Your task to perform on an android device: Go to ESPN.com Image 0: 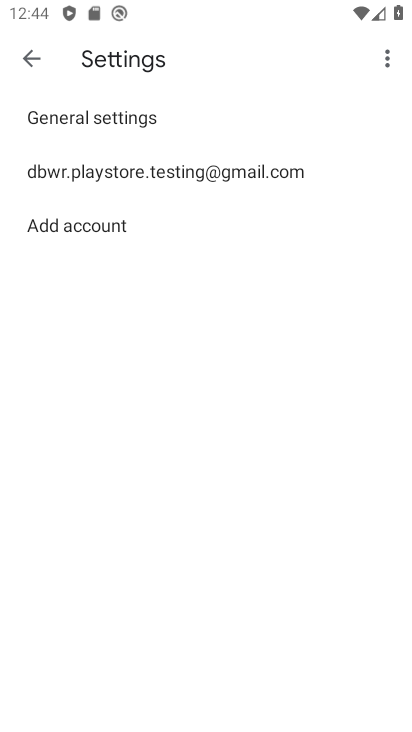
Step 0: press home button
Your task to perform on an android device: Go to ESPN.com Image 1: 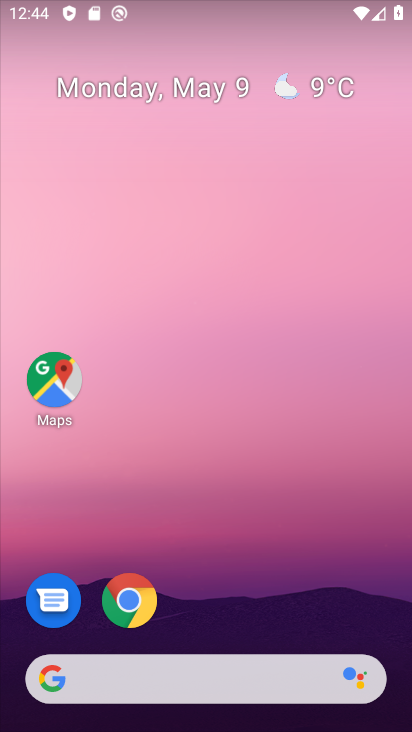
Step 1: click (126, 617)
Your task to perform on an android device: Go to ESPN.com Image 2: 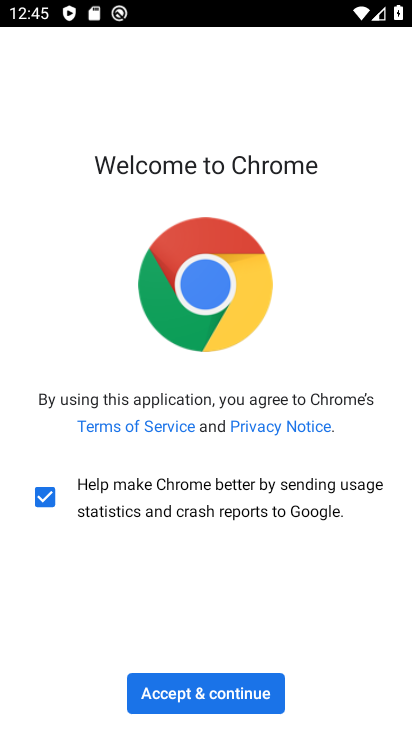
Step 2: click (226, 709)
Your task to perform on an android device: Go to ESPN.com Image 3: 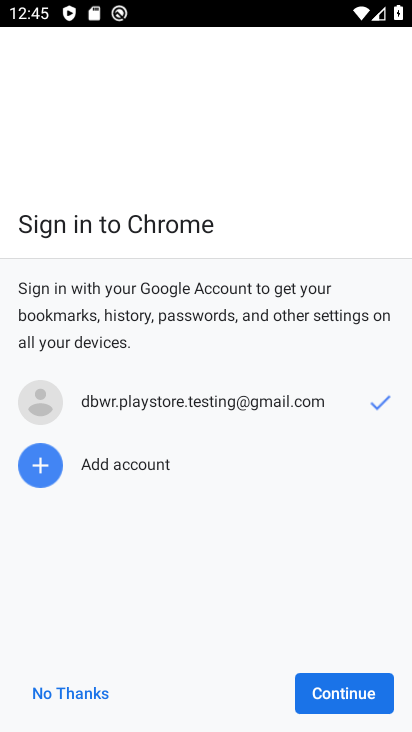
Step 3: click (322, 687)
Your task to perform on an android device: Go to ESPN.com Image 4: 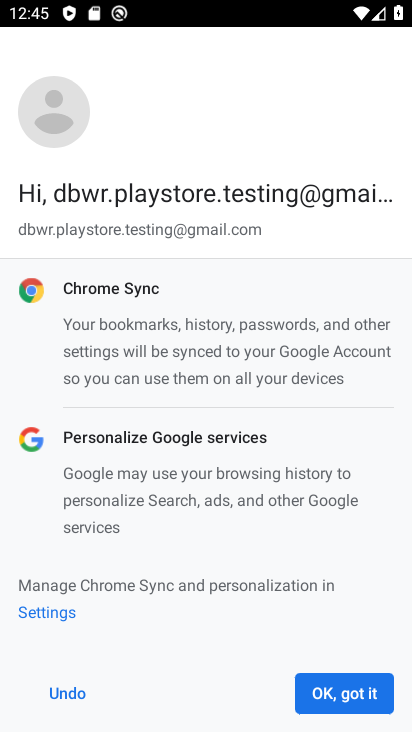
Step 4: click (374, 684)
Your task to perform on an android device: Go to ESPN.com Image 5: 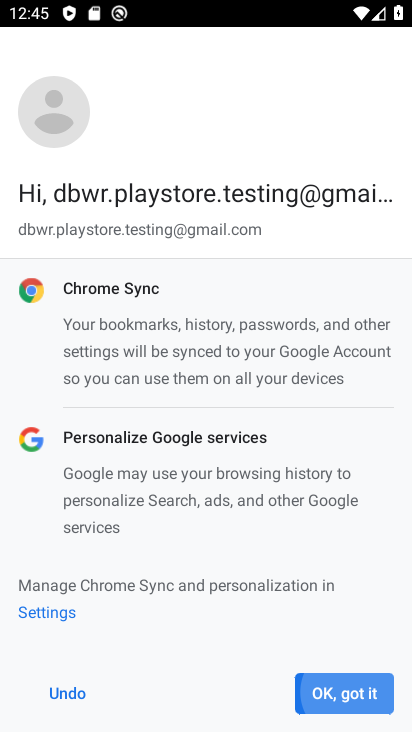
Step 5: click (374, 684)
Your task to perform on an android device: Go to ESPN.com Image 6: 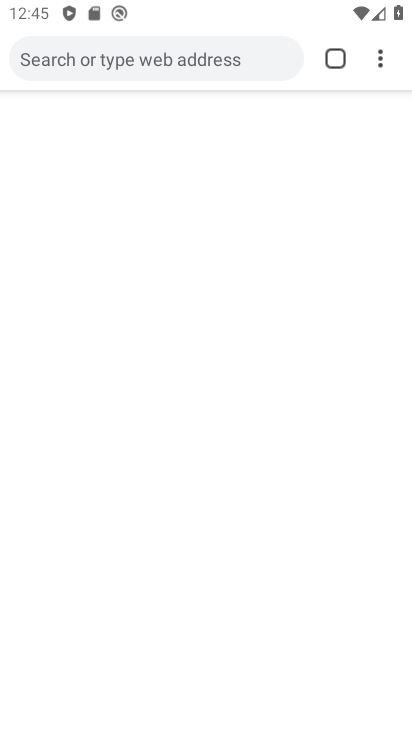
Step 6: click (374, 684)
Your task to perform on an android device: Go to ESPN.com Image 7: 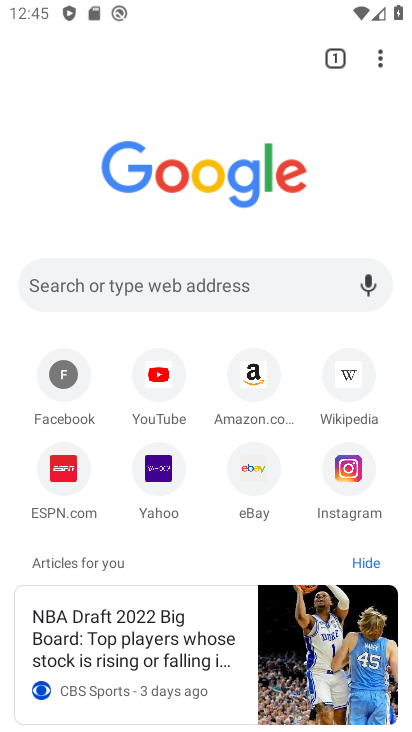
Step 7: click (64, 486)
Your task to perform on an android device: Go to ESPN.com Image 8: 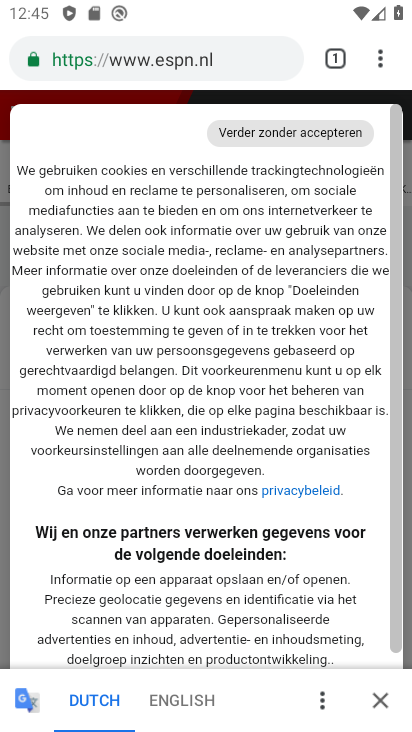
Step 8: task complete